Your task to perform on an android device: Open Yahoo.com Image 0: 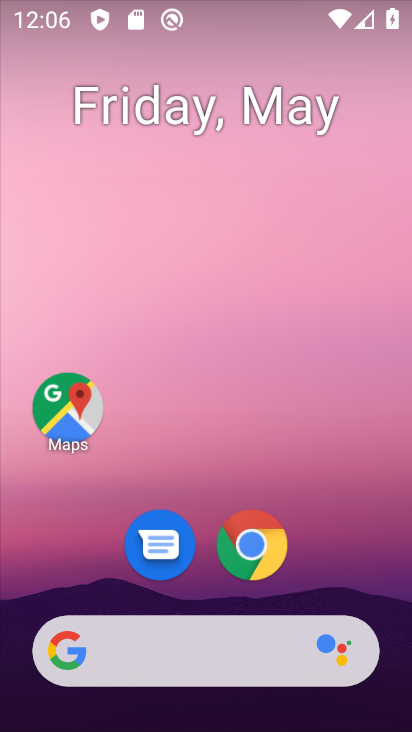
Step 0: click (263, 553)
Your task to perform on an android device: Open Yahoo.com Image 1: 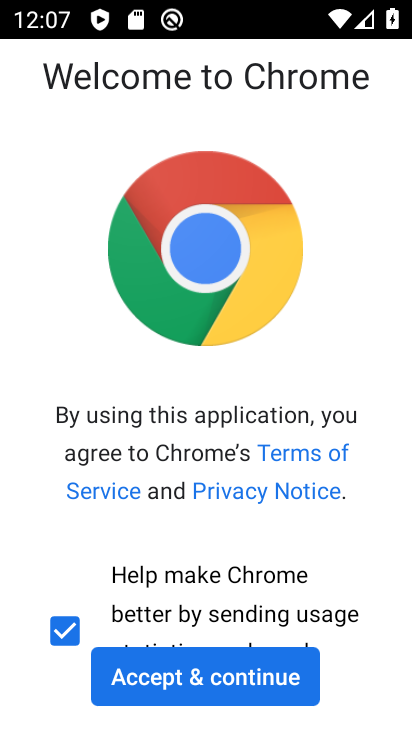
Step 1: click (231, 678)
Your task to perform on an android device: Open Yahoo.com Image 2: 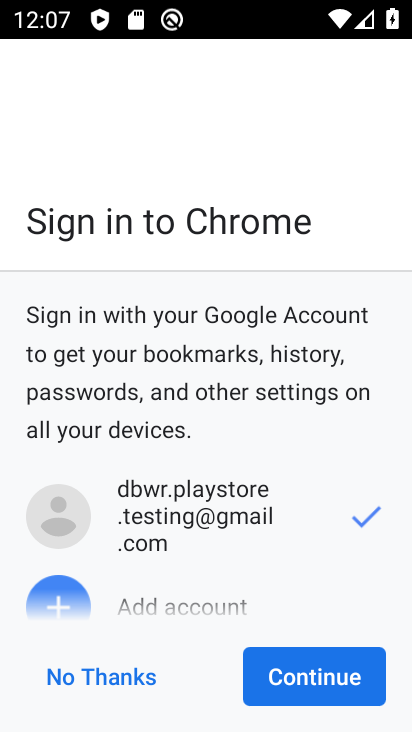
Step 2: click (299, 688)
Your task to perform on an android device: Open Yahoo.com Image 3: 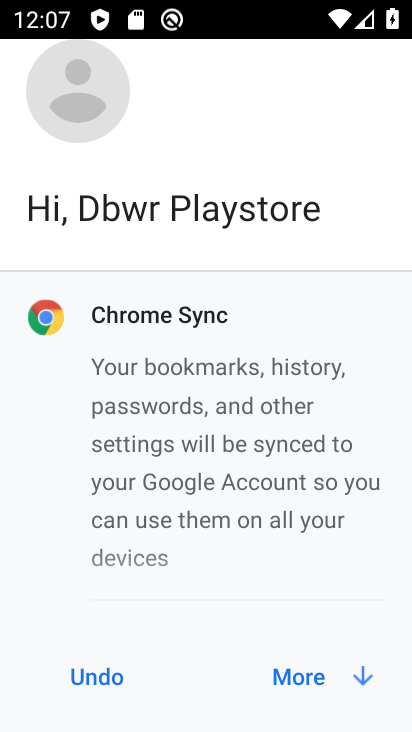
Step 3: click (305, 676)
Your task to perform on an android device: Open Yahoo.com Image 4: 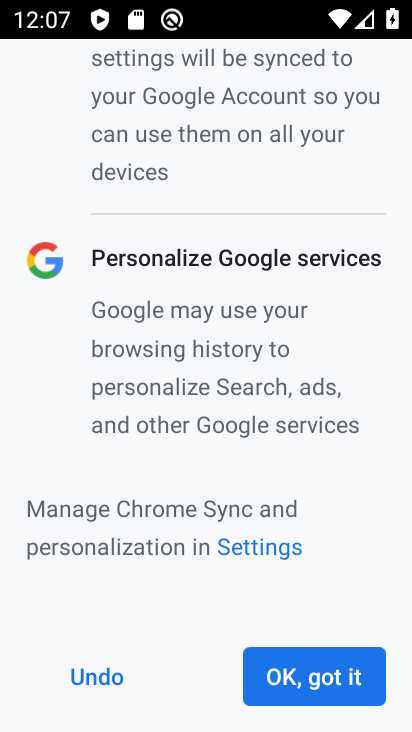
Step 4: click (305, 676)
Your task to perform on an android device: Open Yahoo.com Image 5: 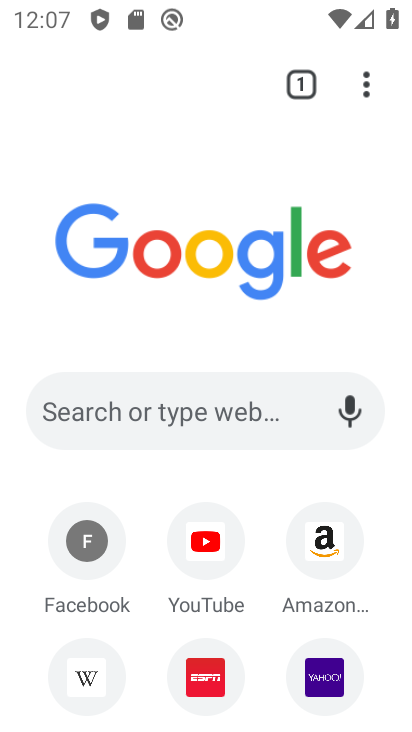
Step 5: click (328, 677)
Your task to perform on an android device: Open Yahoo.com Image 6: 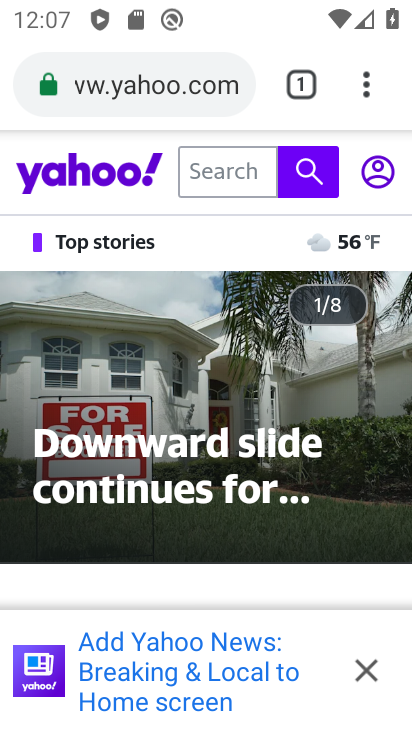
Step 6: task complete